Your task to perform on an android device: toggle priority inbox in the gmail app Image 0: 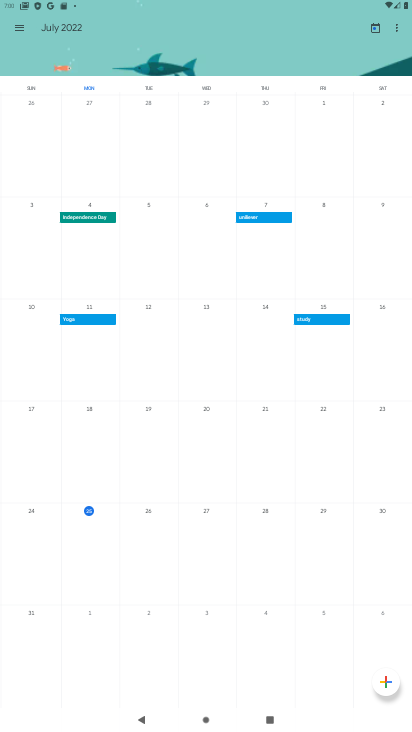
Step 0: press home button
Your task to perform on an android device: toggle priority inbox in the gmail app Image 1: 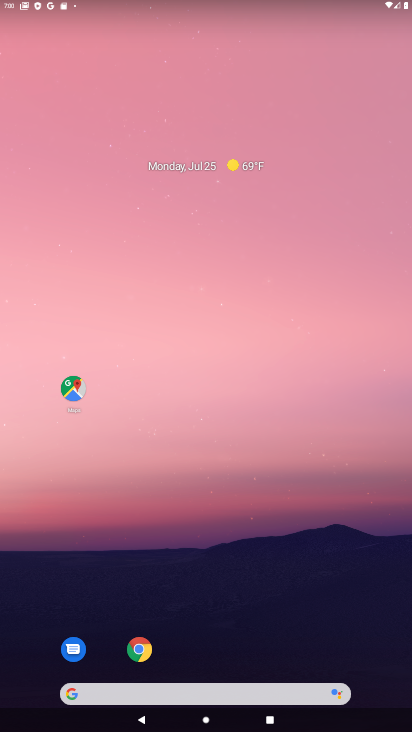
Step 1: drag from (249, 592) to (96, 78)
Your task to perform on an android device: toggle priority inbox in the gmail app Image 2: 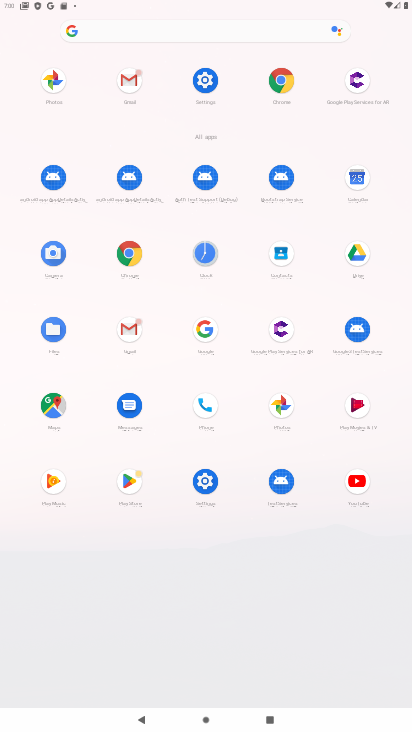
Step 2: click (128, 84)
Your task to perform on an android device: toggle priority inbox in the gmail app Image 3: 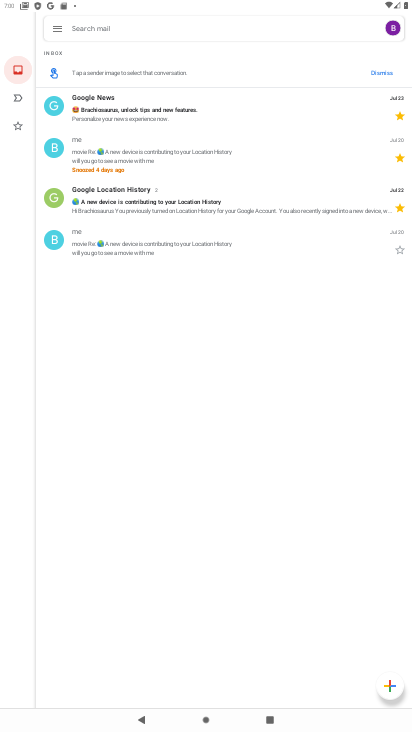
Step 3: click (53, 24)
Your task to perform on an android device: toggle priority inbox in the gmail app Image 4: 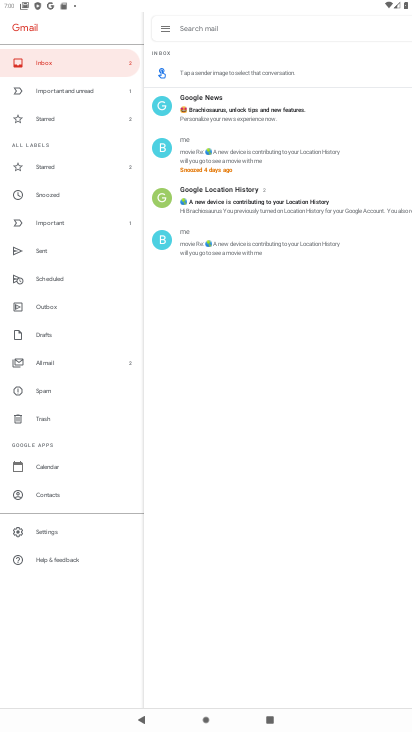
Step 4: click (51, 531)
Your task to perform on an android device: toggle priority inbox in the gmail app Image 5: 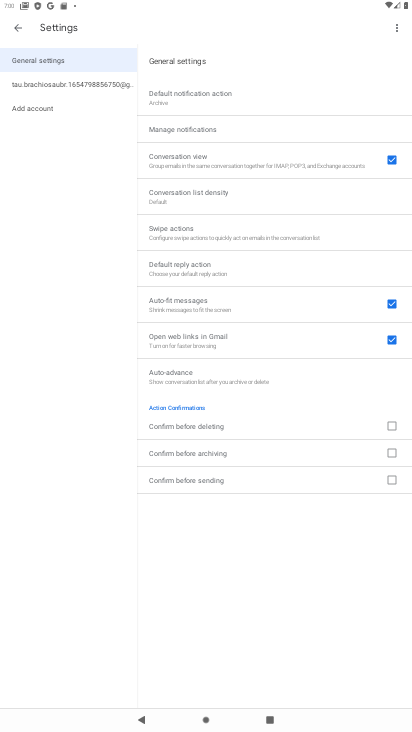
Step 5: click (34, 91)
Your task to perform on an android device: toggle priority inbox in the gmail app Image 6: 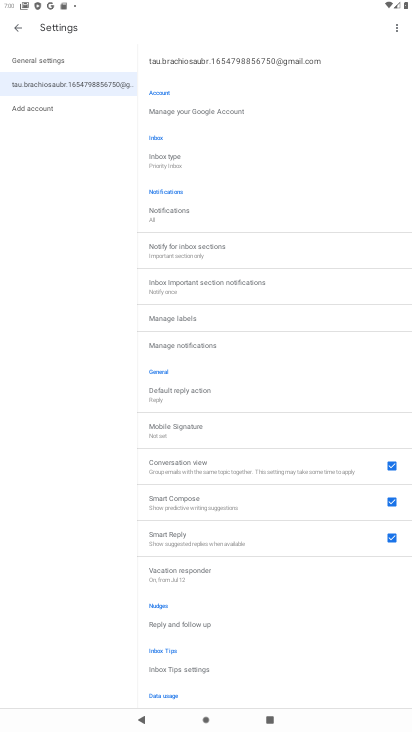
Step 6: click (179, 160)
Your task to perform on an android device: toggle priority inbox in the gmail app Image 7: 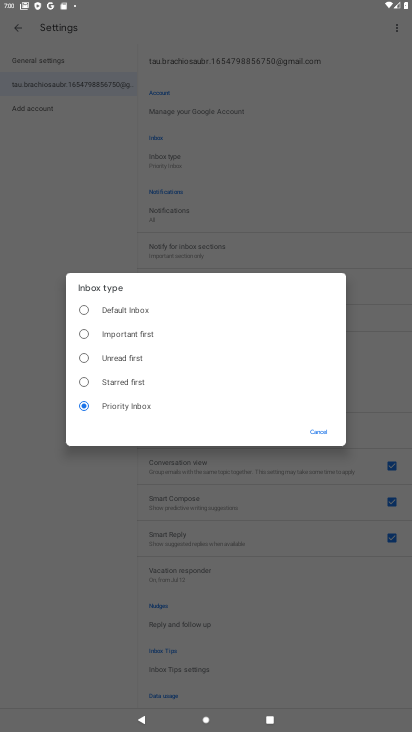
Step 7: click (127, 315)
Your task to perform on an android device: toggle priority inbox in the gmail app Image 8: 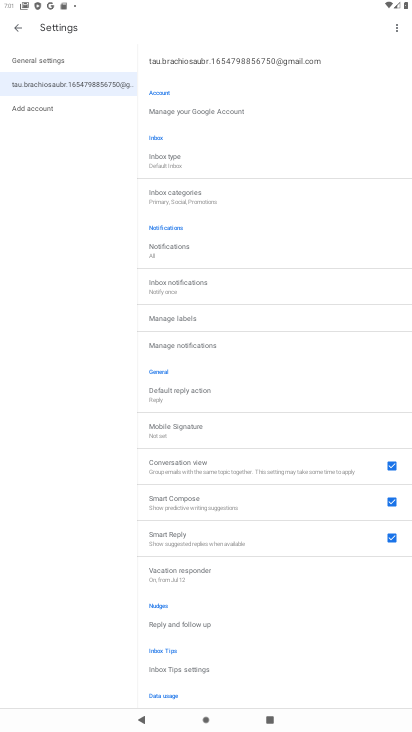
Step 8: task complete